Your task to perform on an android device: move a message to another label in the gmail app Image 0: 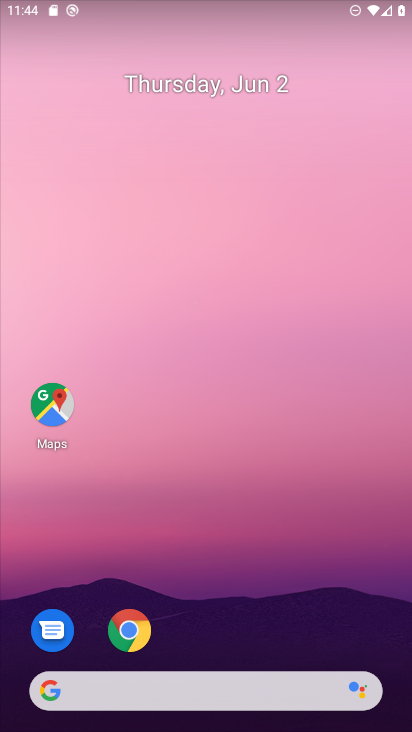
Step 0: drag from (255, 648) to (176, 221)
Your task to perform on an android device: move a message to another label in the gmail app Image 1: 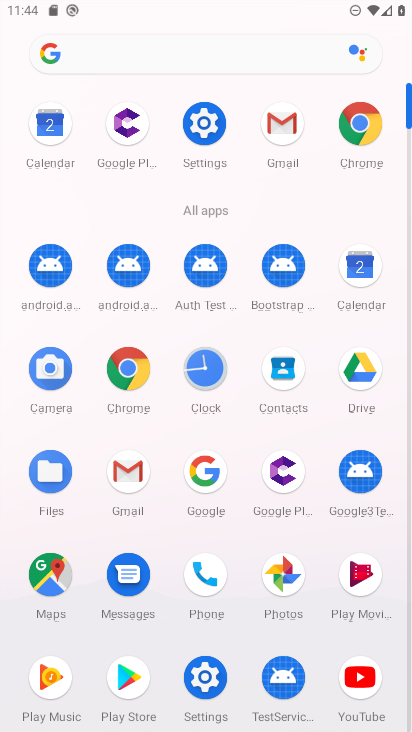
Step 1: click (281, 148)
Your task to perform on an android device: move a message to another label in the gmail app Image 2: 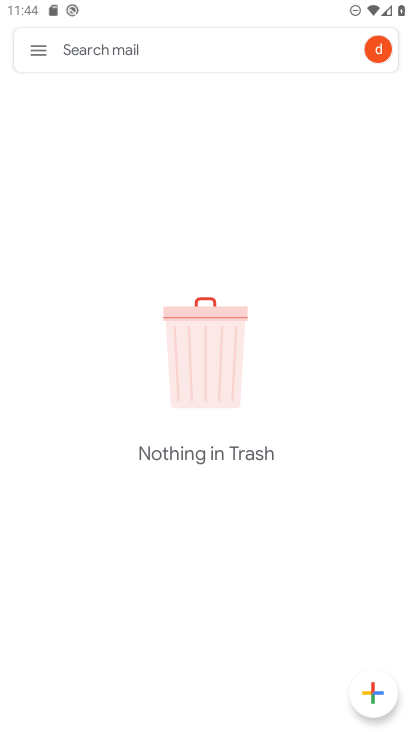
Step 2: click (33, 45)
Your task to perform on an android device: move a message to another label in the gmail app Image 3: 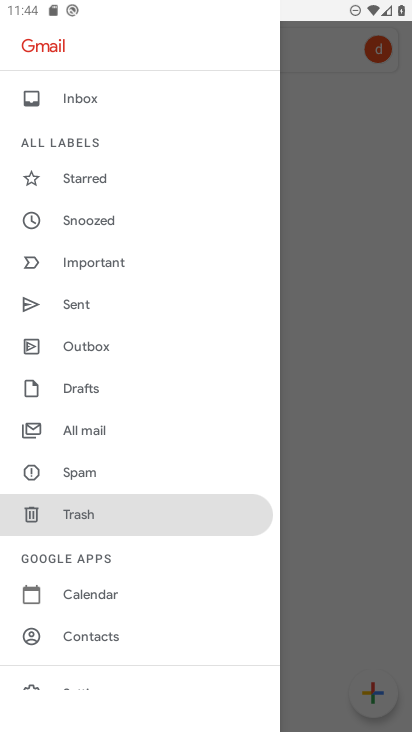
Step 3: click (76, 109)
Your task to perform on an android device: move a message to another label in the gmail app Image 4: 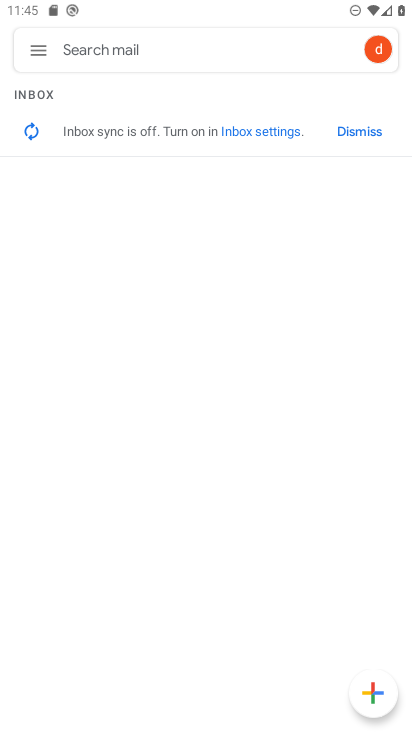
Step 4: task complete